Your task to perform on an android device: check battery use Image 0: 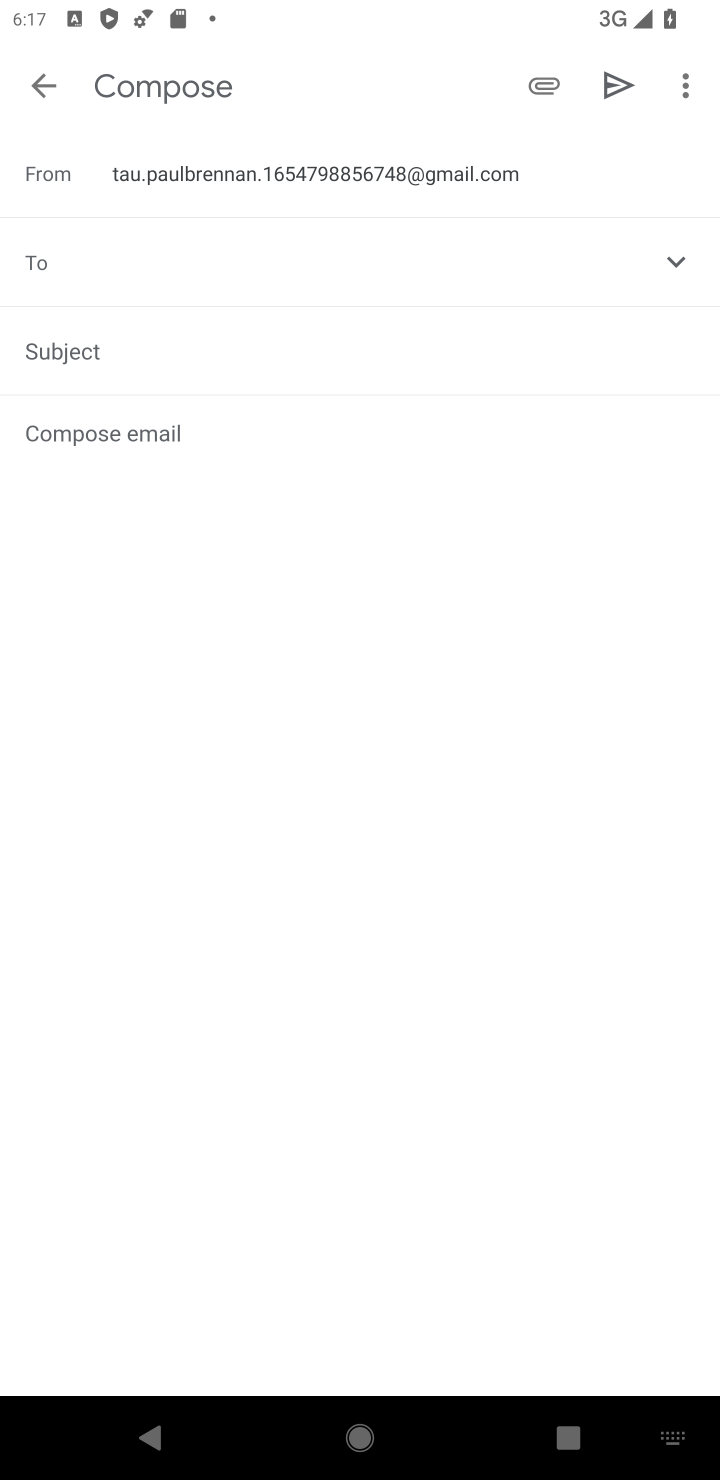
Step 0: press home button
Your task to perform on an android device: check battery use Image 1: 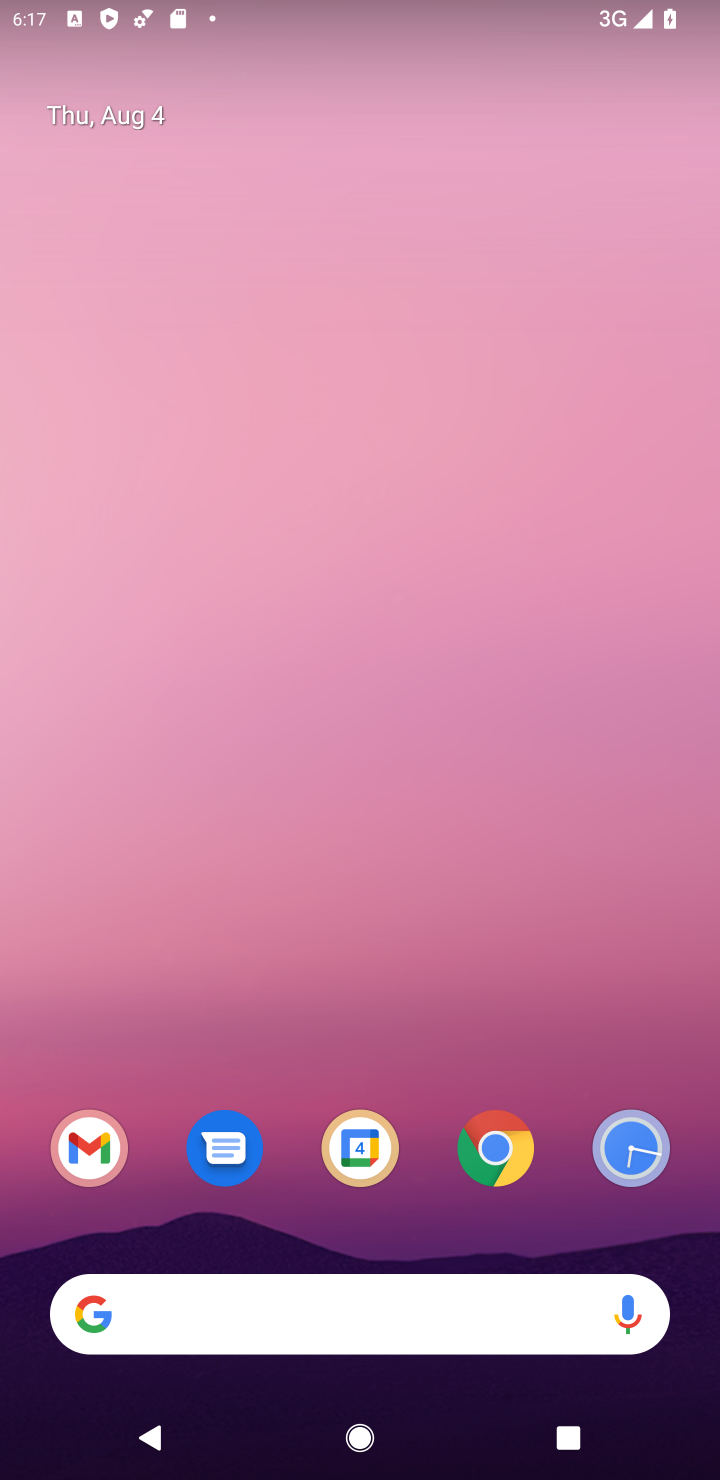
Step 1: drag from (529, 1058) to (518, 257)
Your task to perform on an android device: check battery use Image 2: 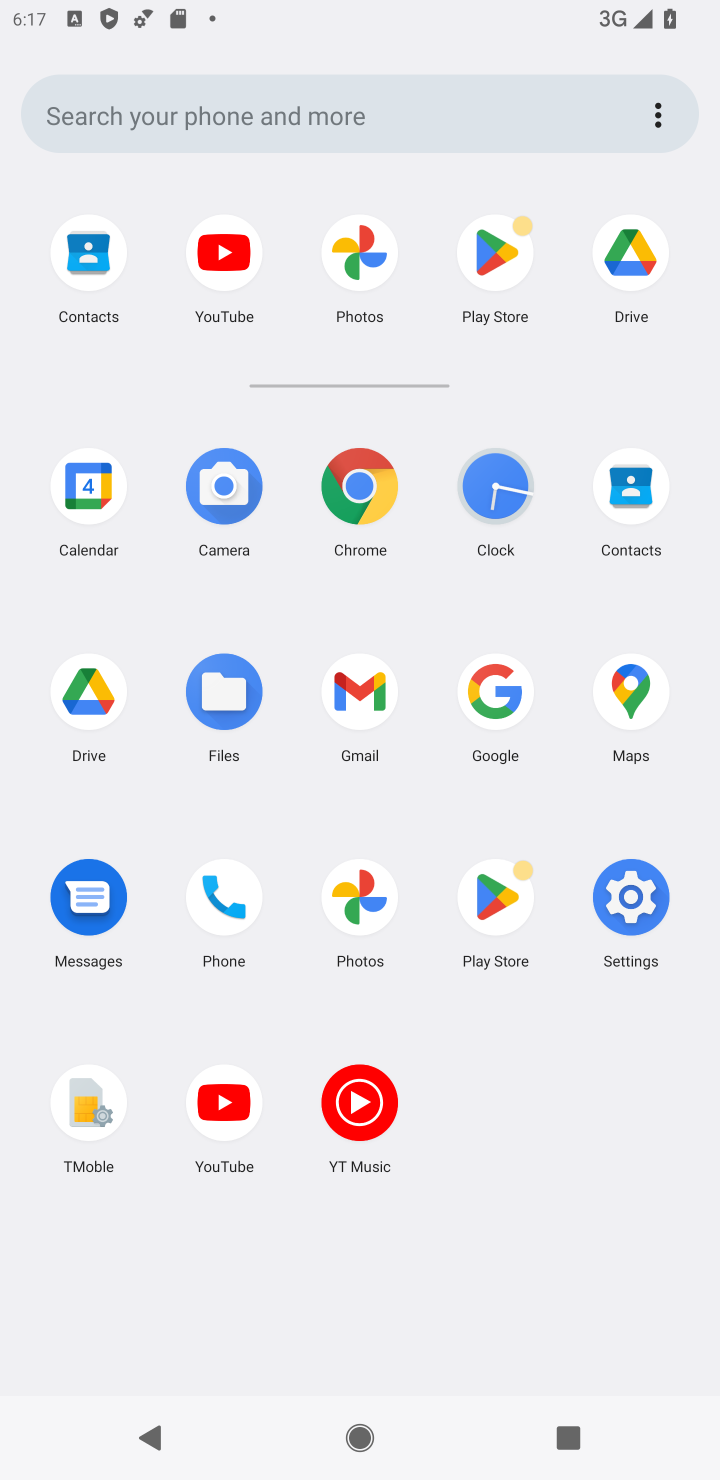
Step 2: click (635, 902)
Your task to perform on an android device: check battery use Image 3: 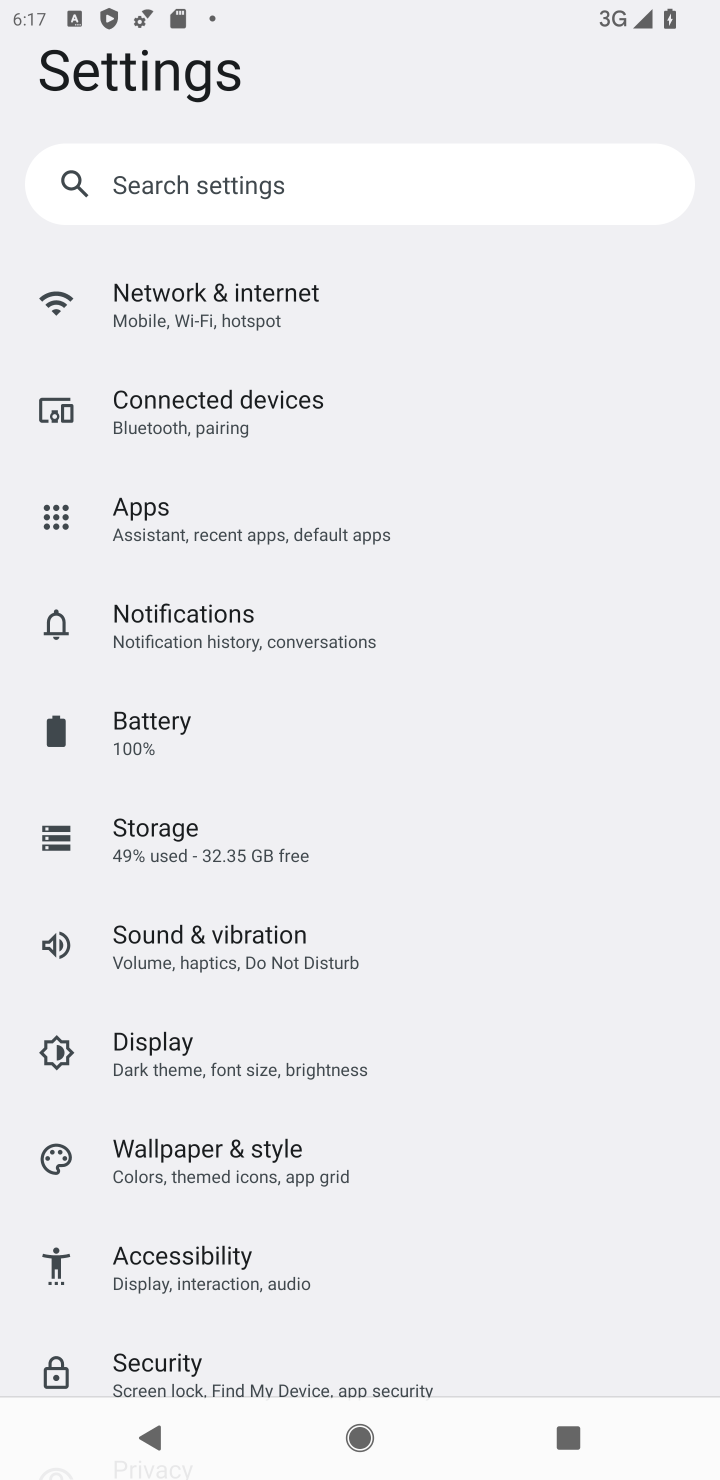
Step 3: click (154, 729)
Your task to perform on an android device: check battery use Image 4: 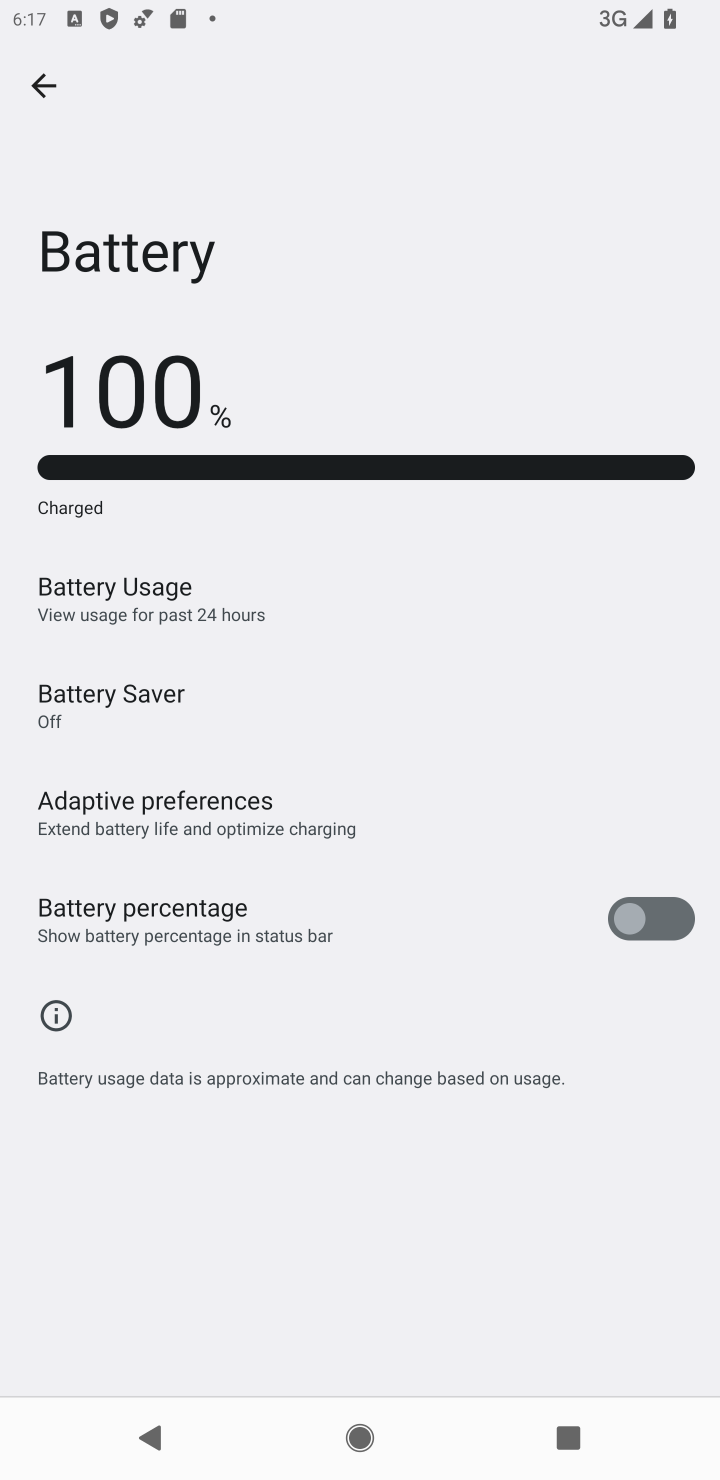
Step 4: click (99, 598)
Your task to perform on an android device: check battery use Image 5: 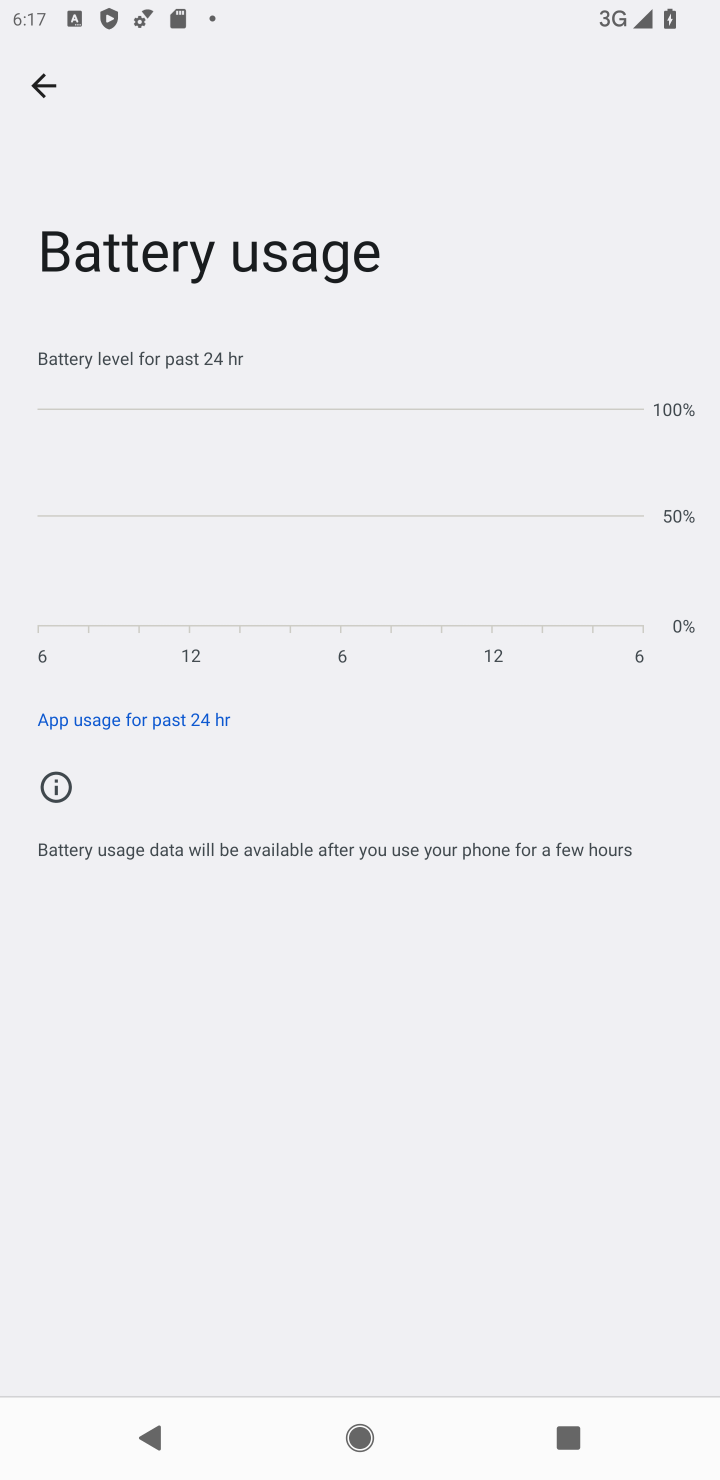
Step 5: task complete